Your task to perform on an android device: delete location history Image 0: 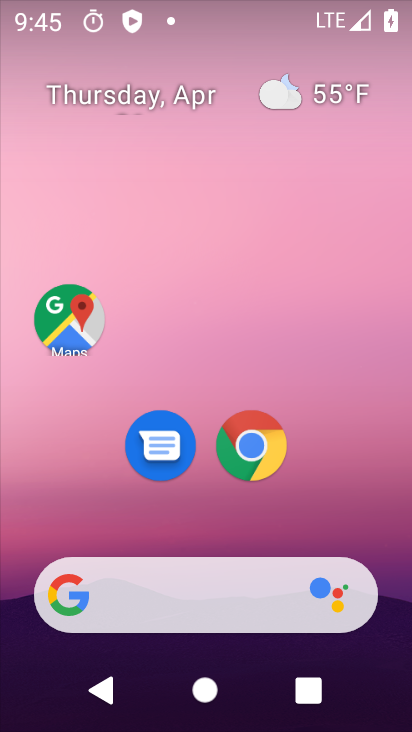
Step 0: click (52, 327)
Your task to perform on an android device: delete location history Image 1: 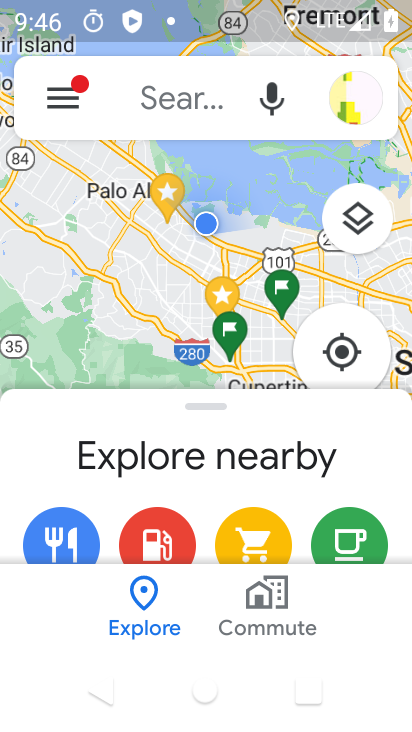
Step 1: click (64, 108)
Your task to perform on an android device: delete location history Image 2: 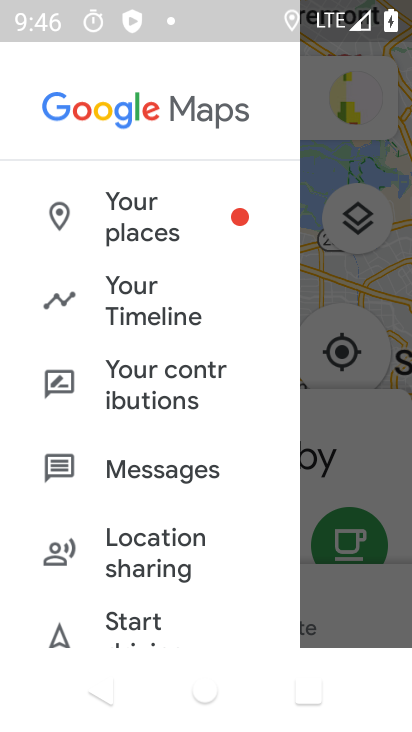
Step 2: click (142, 303)
Your task to perform on an android device: delete location history Image 3: 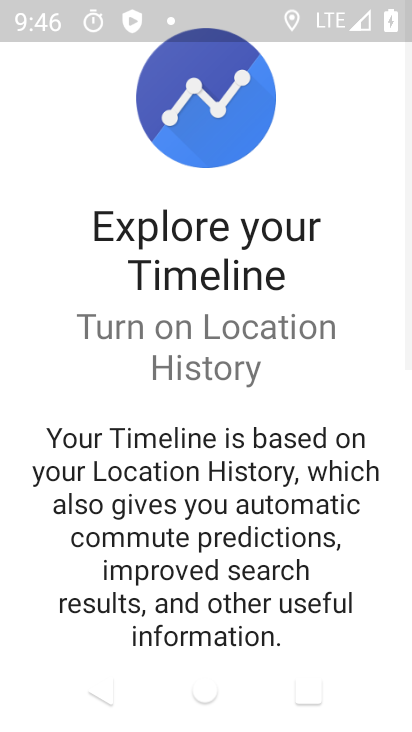
Step 3: drag from (258, 464) to (259, 77)
Your task to perform on an android device: delete location history Image 4: 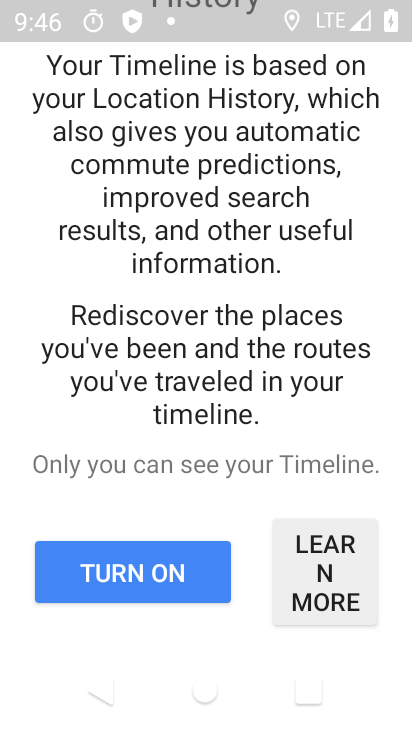
Step 4: drag from (296, 569) to (298, 319)
Your task to perform on an android device: delete location history Image 5: 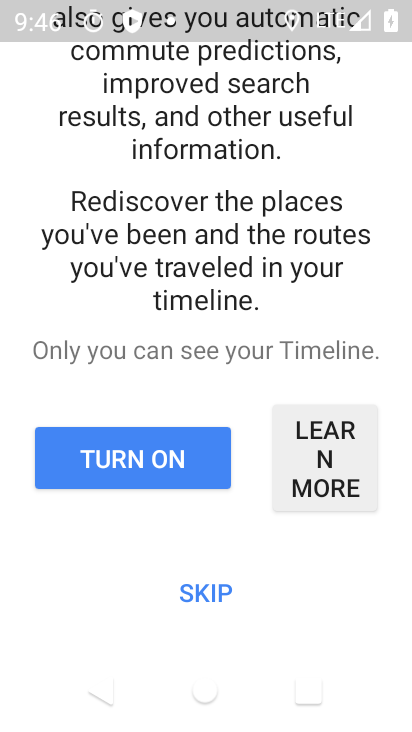
Step 5: click (216, 606)
Your task to perform on an android device: delete location history Image 6: 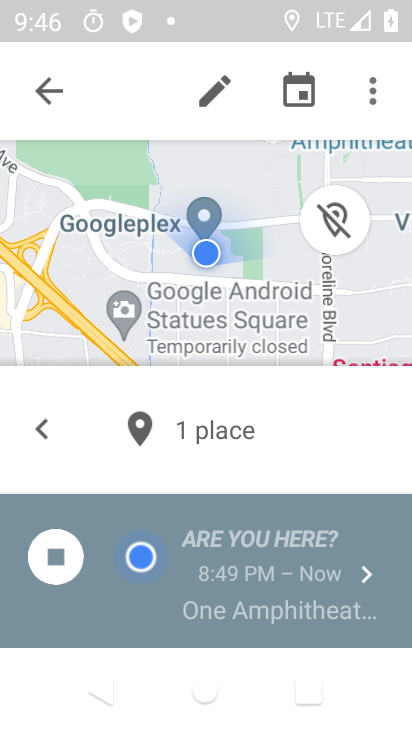
Step 6: click (370, 98)
Your task to perform on an android device: delete location history Image 7: 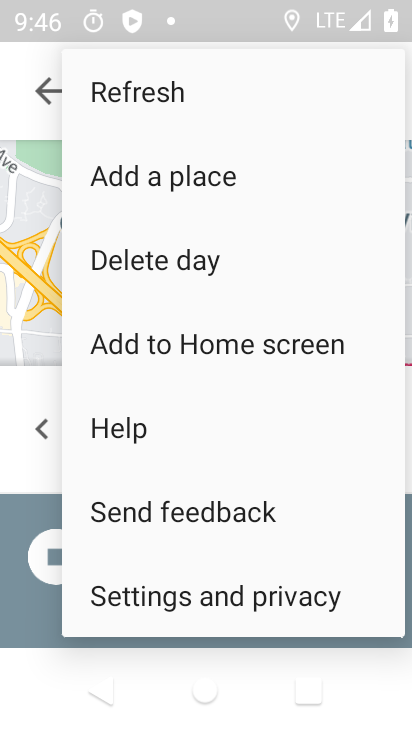
Step 7: click (165, 596)
Your task to perform on an android device: delete location history Image 8: 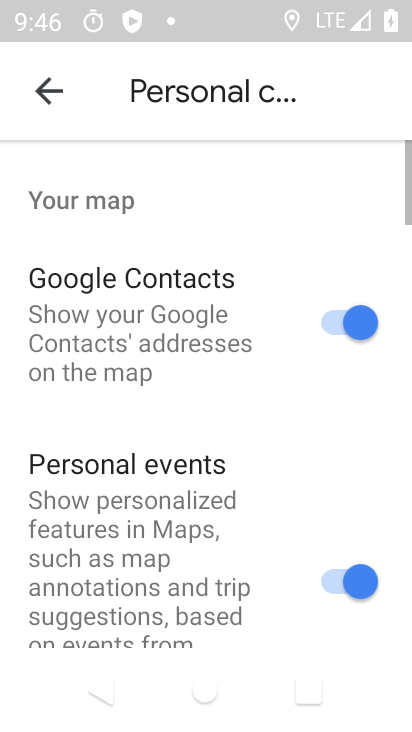
Step 8: drag from (178, 439) to (161, 54)
Your task to perform on an android device: delete location history Image 9: 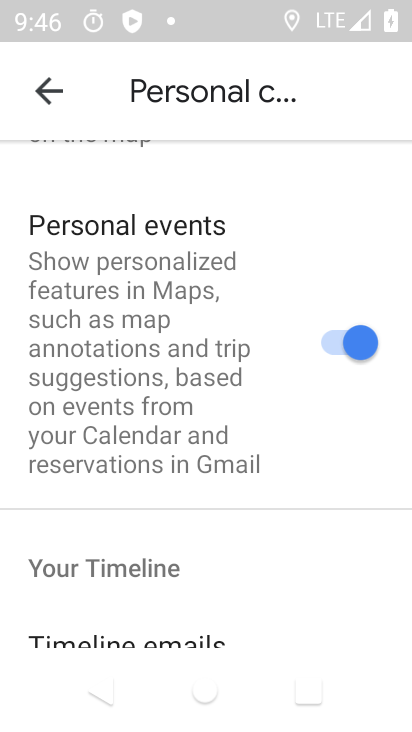
Step 9: drag from (157, 491) to (161, 144)
Your task to perform on an android device: delete location history Image 10: 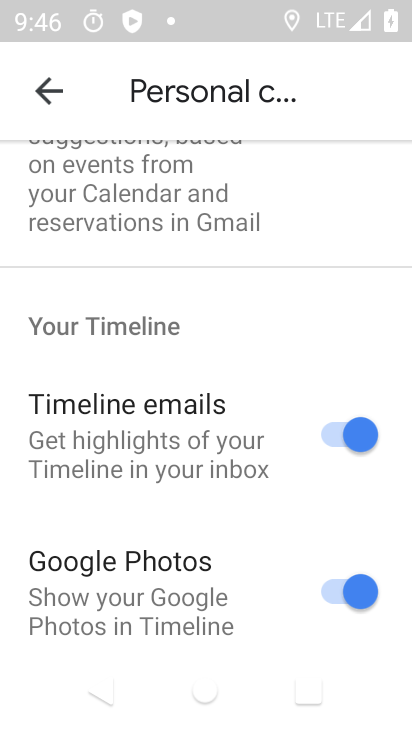
Step 10: drag from (169, 554) to (158, 153)
Your task to perform on an android device: delete location history Image 11: 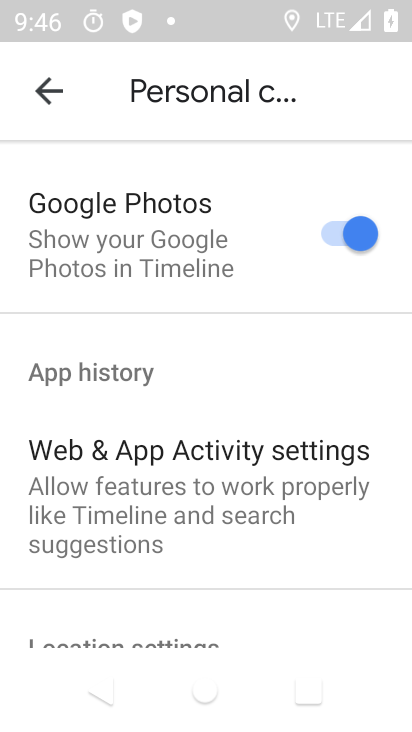
Step 11: drag from (167, 485) to (153, 104)
Your task to perform on an android device: delete location history Image 12: 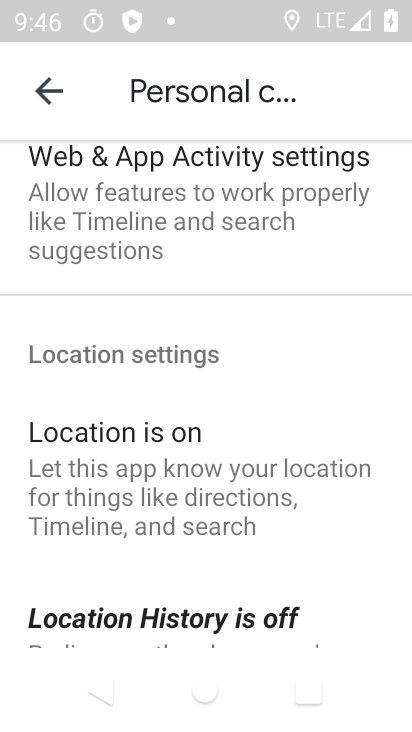
Step 12: drag from (186, 455) to (160, 138)
Your task to perform on an android device: delete location history Image 13: 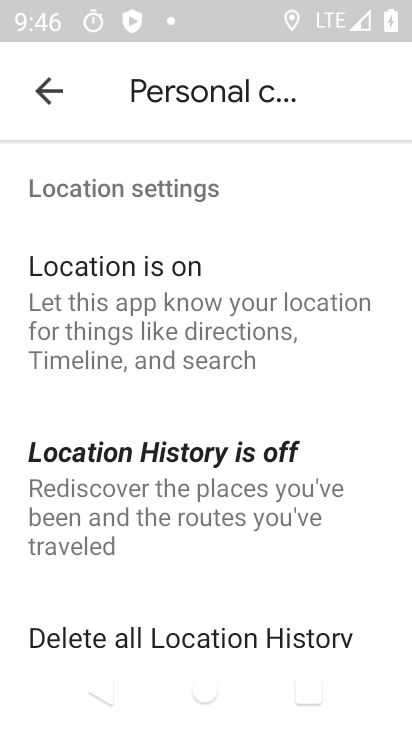
Step 13: drag from (160, 525) to (167, 224)
Your task to perform on an android device: delete location history Image 14: 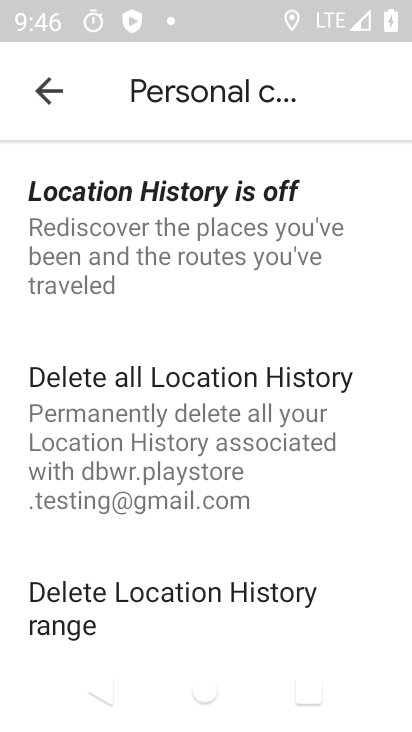
Step 14: click (166, 418)
Your task to perform on an android device: delete location history Image 15: 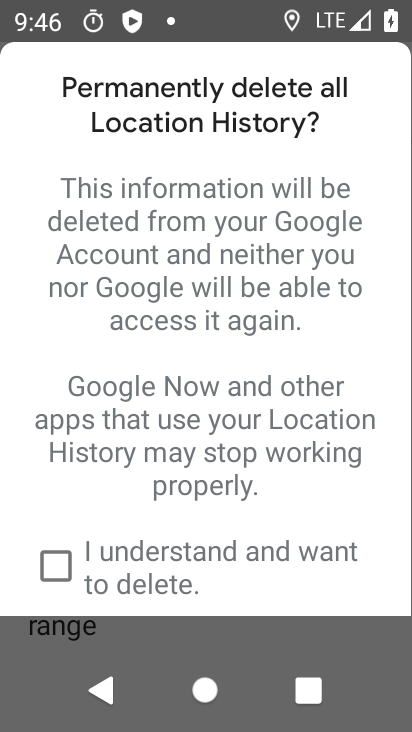
Step 15: click (56, 569)
Your task to perform on an android device: delete location history Image 16: 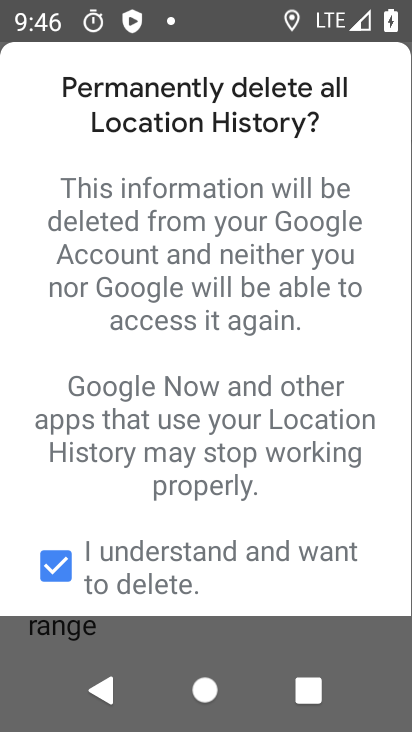
Step 16: click (384, 612)
Your task to perform on an android device: delete location history Image 17: 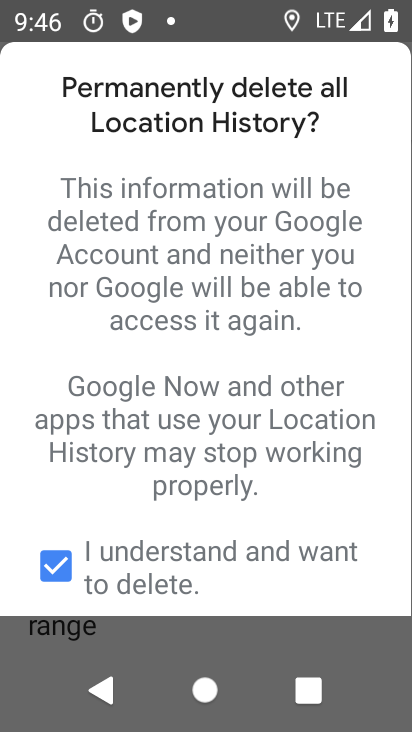
Step 17: drag from (366, 570) to (379, 338)
Your task to perform on an android device: delete location history Image 18: 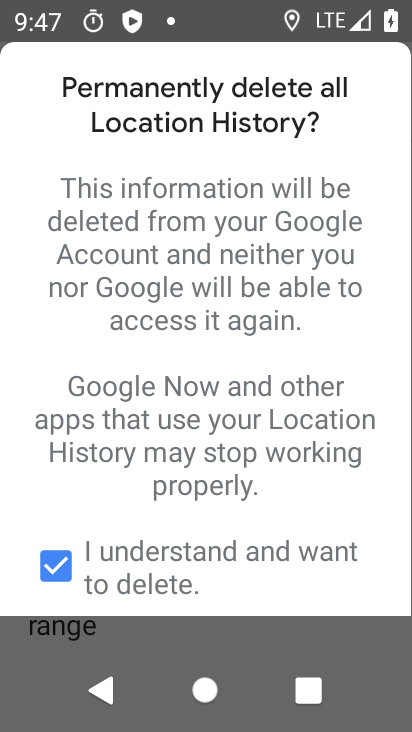
Step 18: drag from (327, 563) to (297, 324)
Your task to perform on an android device: delete location history Image 19: 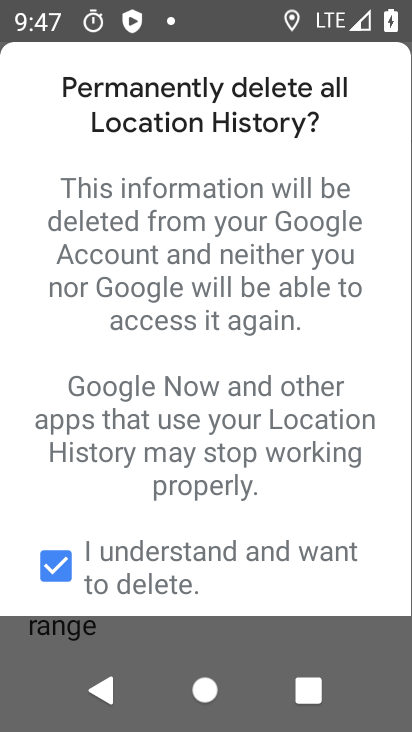
Step 19: click (348, 592)
Your task to perform on an android device: delete location history Image 20: 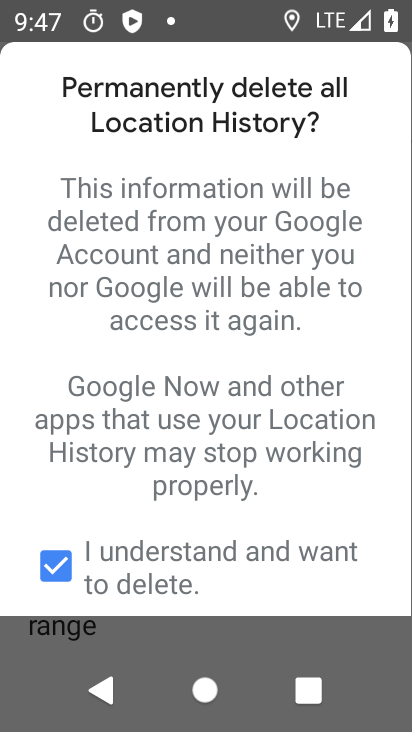
Step 20: click (392, 606)
Your task to perform on an android device: delete location history Image 21: 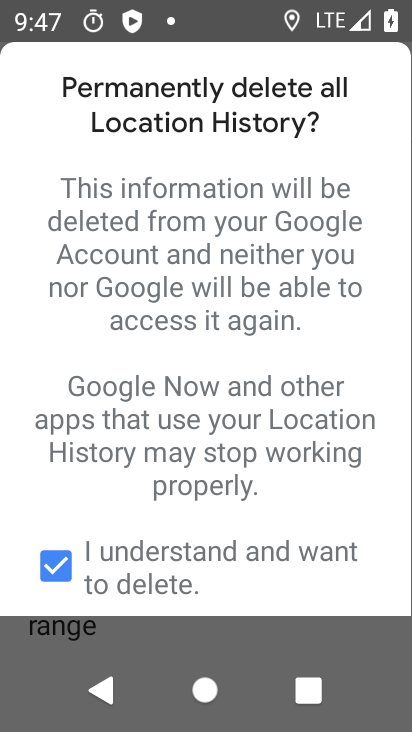
Step 21: drag from (373, 570) to (334, 172)
Your task to perform on an android device: delete location history Image 22: 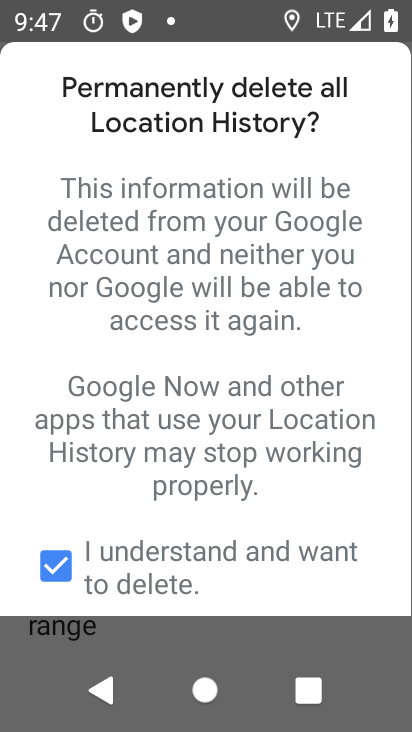
Step 22: drag from (269, 558) to (260, 170)
Your task to perform on an android device: delete location history Image 23: 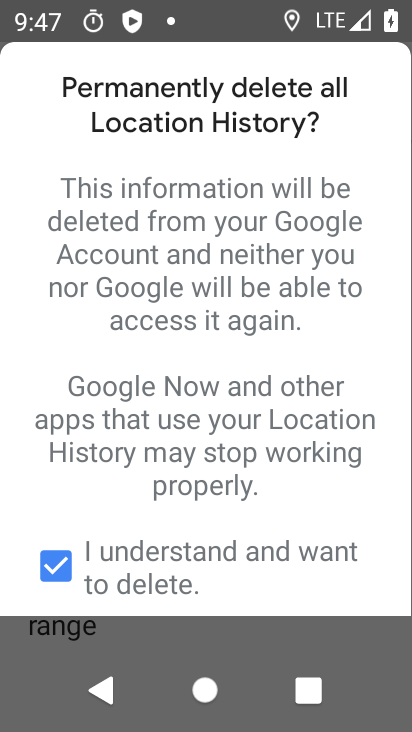
Step 23: click (344, 592)
Your task to perform on an android device: delete location history Image 24: 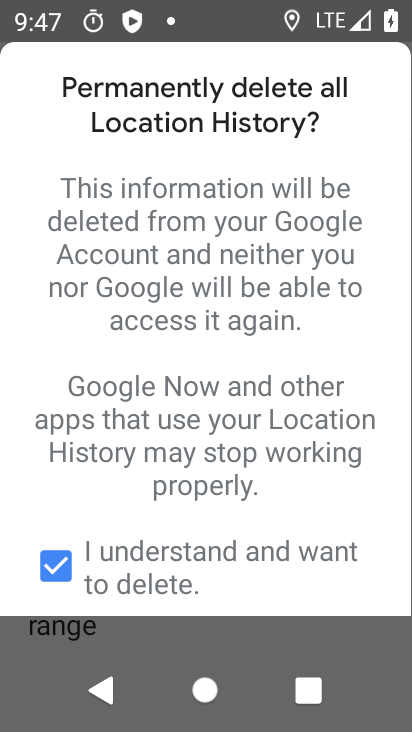
Step 24: drag from (344, 590) to (311, 138)
Your task to perform on an android device: delete location history Image 25: 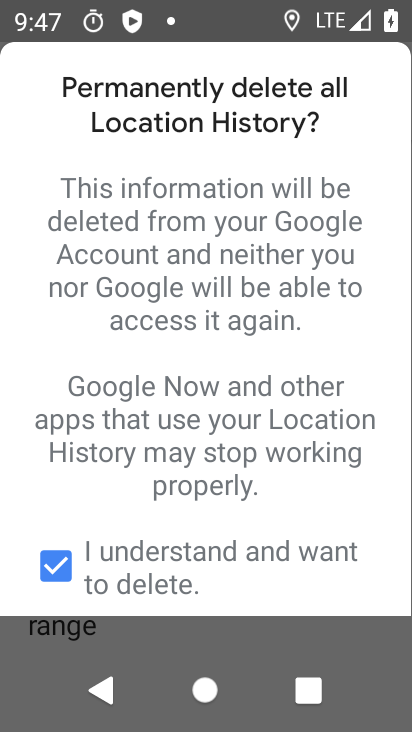
Step 25: drag from (364, 570) to (347, 211)
Your task to perform on an android device: delete location history Image 26: 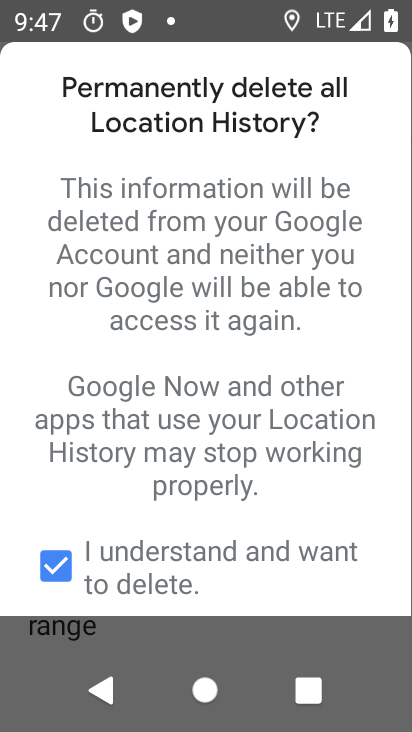
Step 26: click (390, 611)
Your task to perform on an android device: delete location history Image 27: 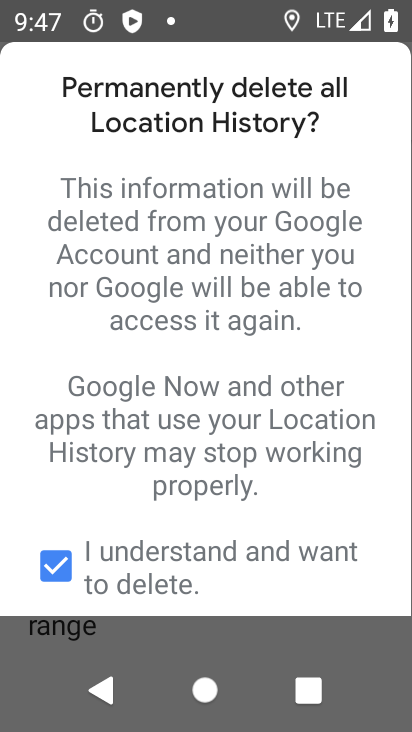
Step 27: drag from (362, 561) to (336, 168)
Your task to perform on an android device: delete location history Image 28: 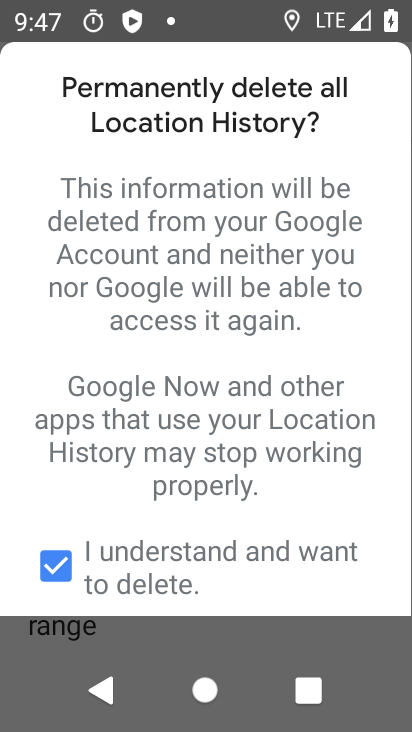
Step 28: click (355, 597)
Your task to perform on an android device: delete location history Image 29: 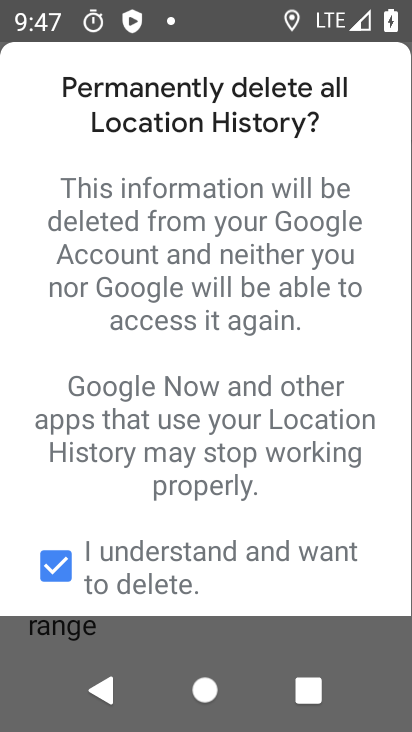
Step 29: click (375, 608)
Your task to perform on an android device: delete location history Image 30: 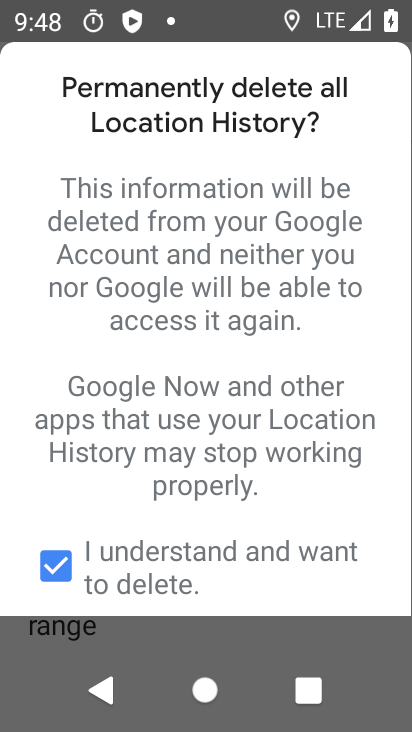
Step 30: drag from (319, 537) to (321, 144)
Your task to perform on an android device: delete location history Image 31: 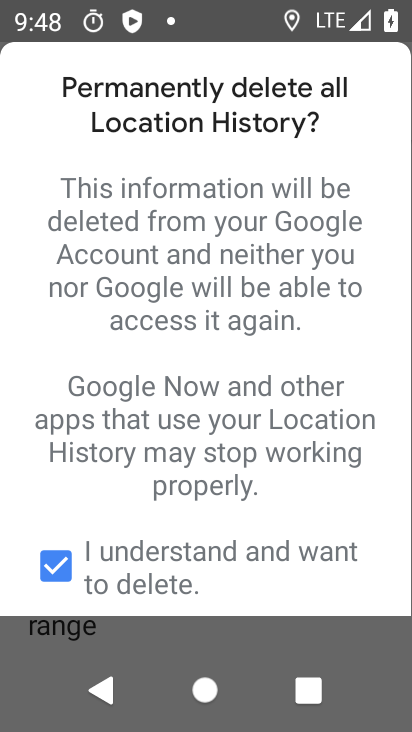
Step 31: drag from (252, 577) to (245, 169)
Your task to perform on an android device: delete location history Image 32: 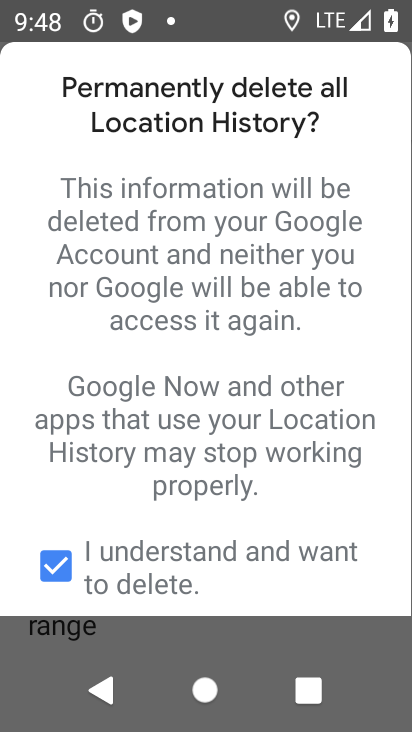
Step 32: click (355, 605)
Your task to perform on an android device: delete location history Image 33: 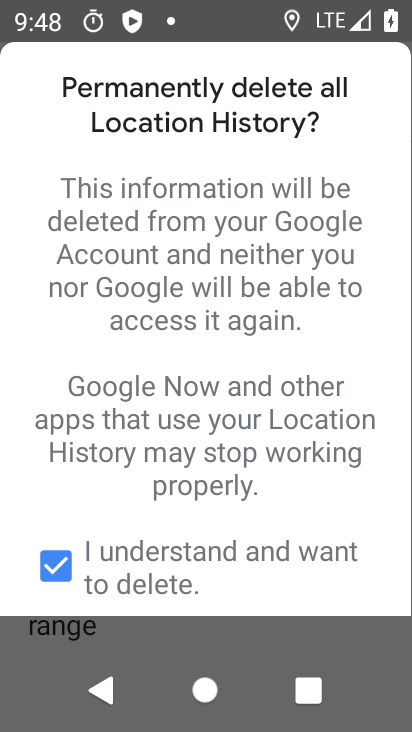
Step 33: click (404, 611)
Your task to perform on an android device: delete location history Image 34: 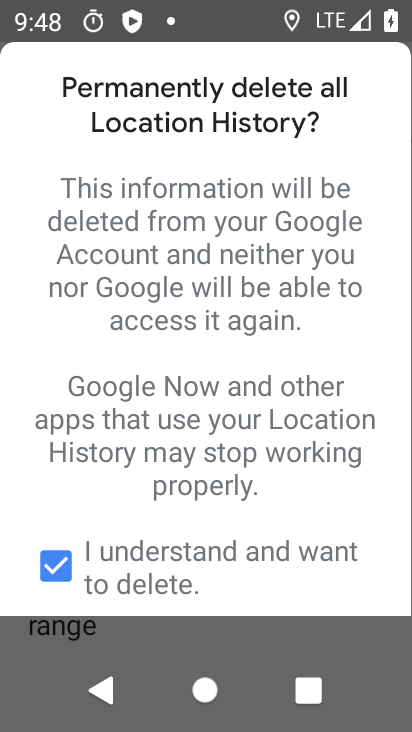
Step 34: click (309, 610)
Your task to perform on an android device: delete location history Image 35: 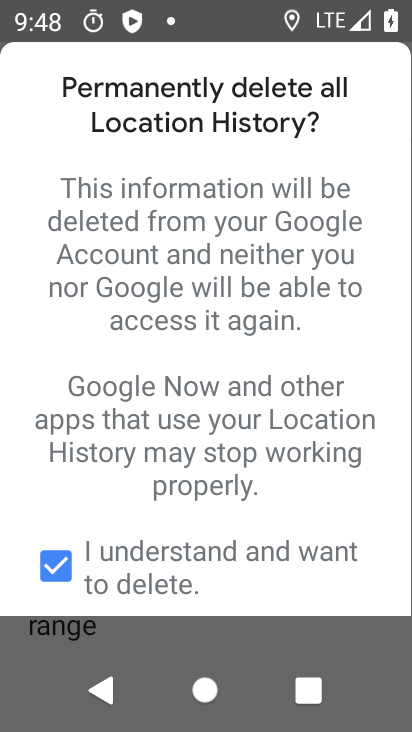
Step 35: click (262, 606)
Your task to perform on an android device: delete location history Image 36: 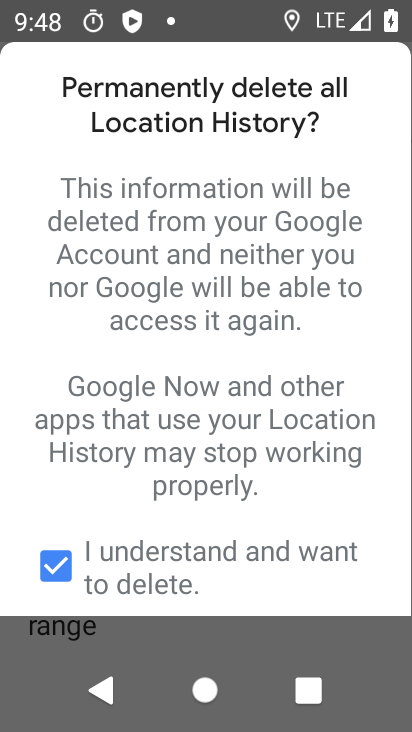
Step 36: click (251, 608)
Your task to perform on an android device: delete location history Image 37: 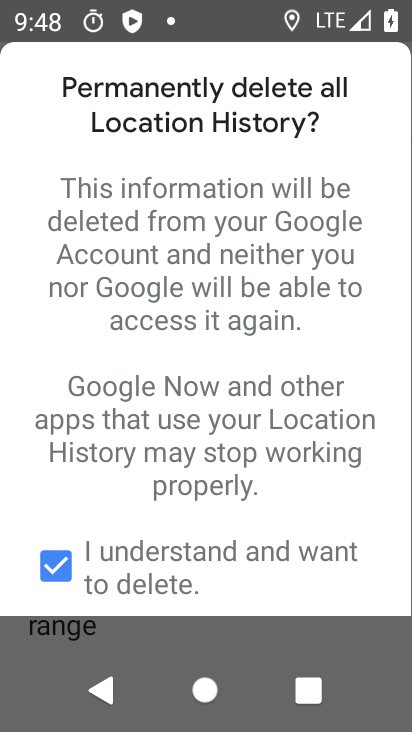
Step 37: click (262, 626)
Your task to perform on an android device: delete location history Image 38: 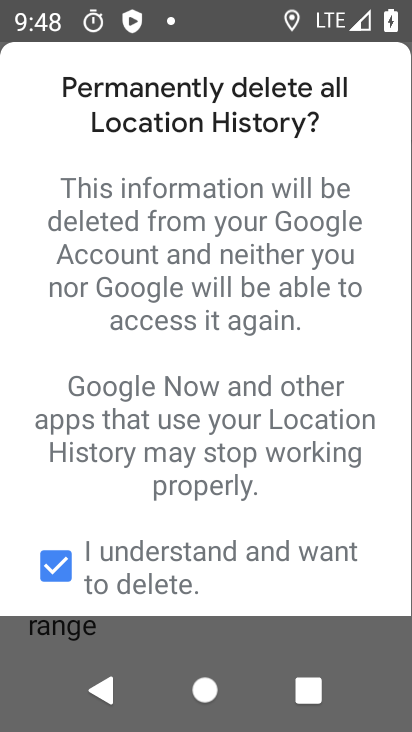
Step 38: click (362, 632)
Your task to perform on an android device: delete location history Image 39: 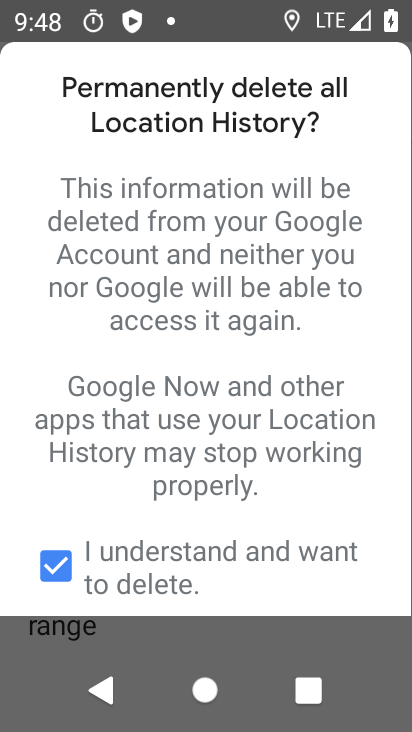
Step 39: task complete